Your task to perform on an android device: set default search engine in the chrome app Image 0: 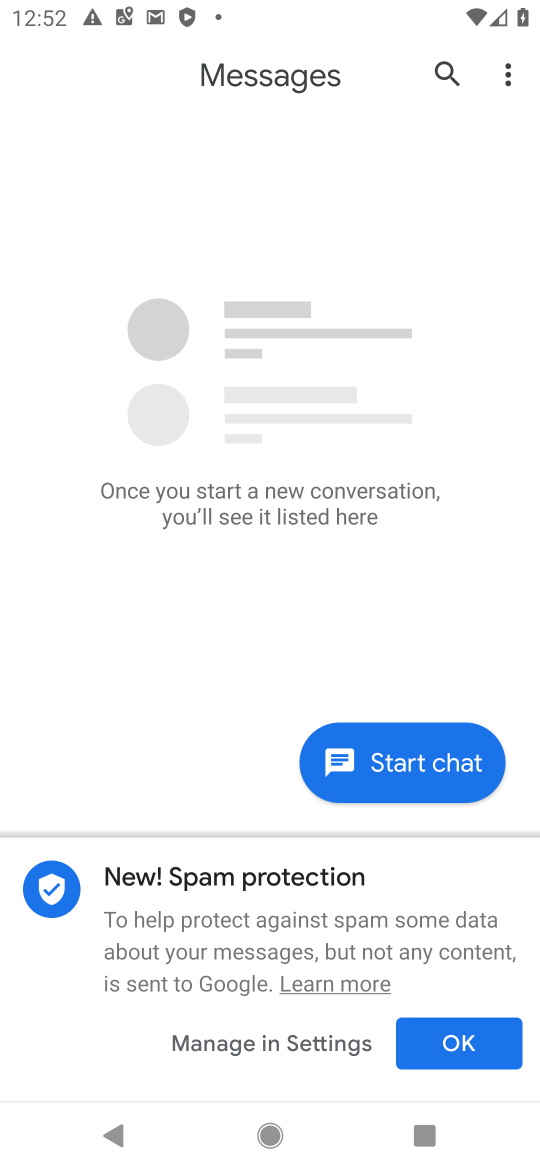
Step 0: drag from (312, 956) to (343, 61)
Your task to perform on an android device: set default search engine in the chrome app Image 1: 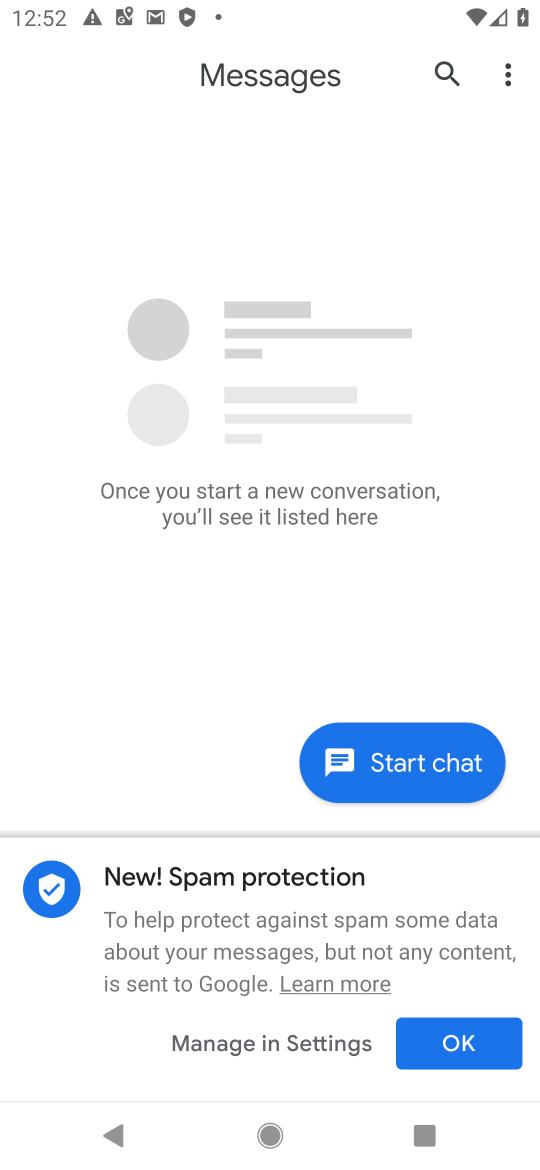
Step 1: press home button
Your task to perform on an android device: set default search engine in the chrome app Image 2: 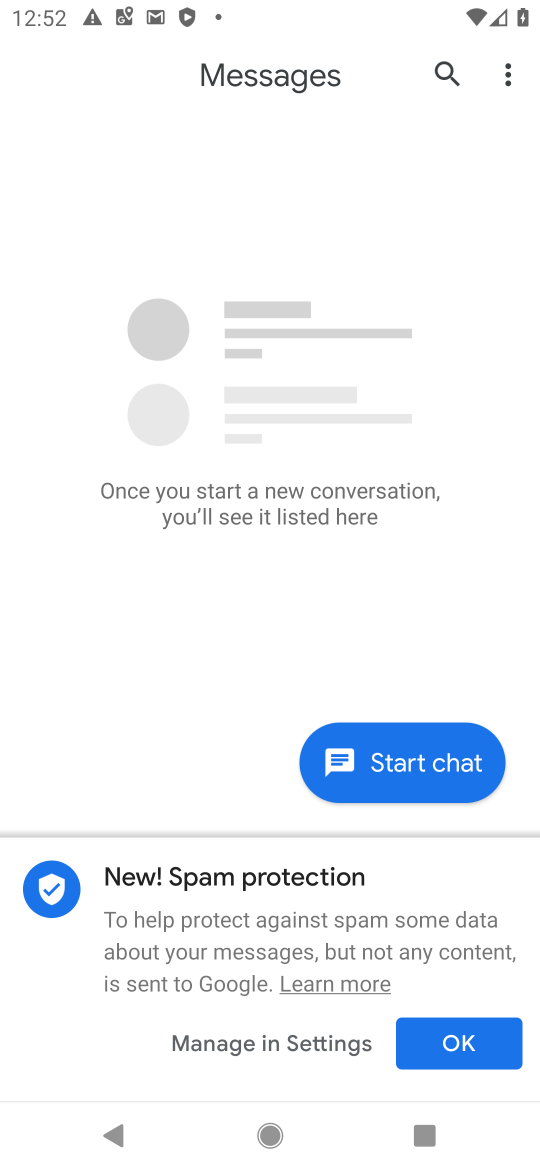
Step 2: press home button
Your task to perform on an android device: set default search engine in the chrome app Image 3: 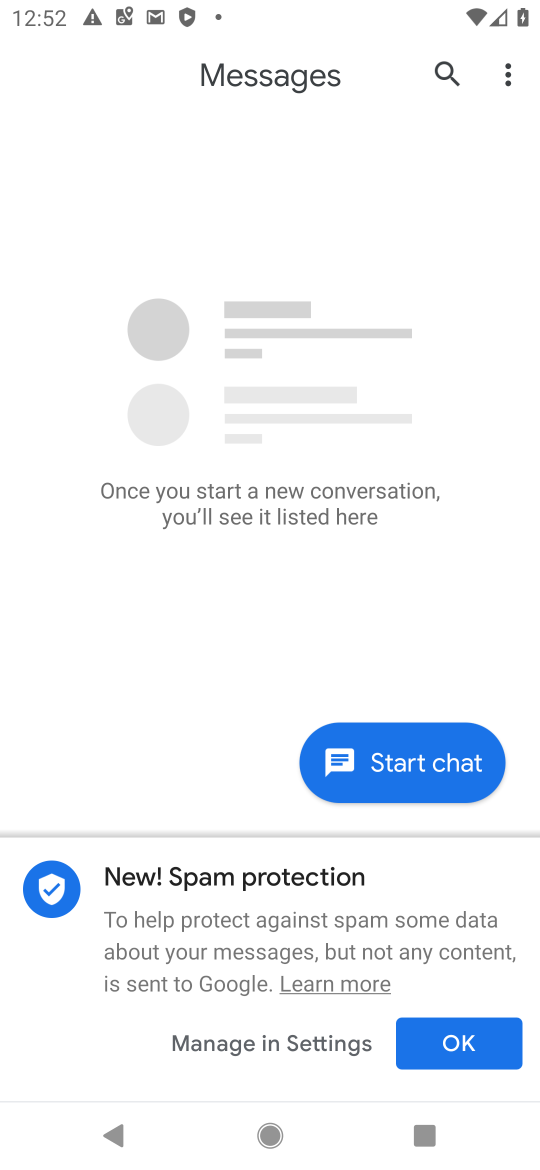
Step 3: click (263, 301)
Your task to perform on an android device: set default search engine in the chrome app Image 4: 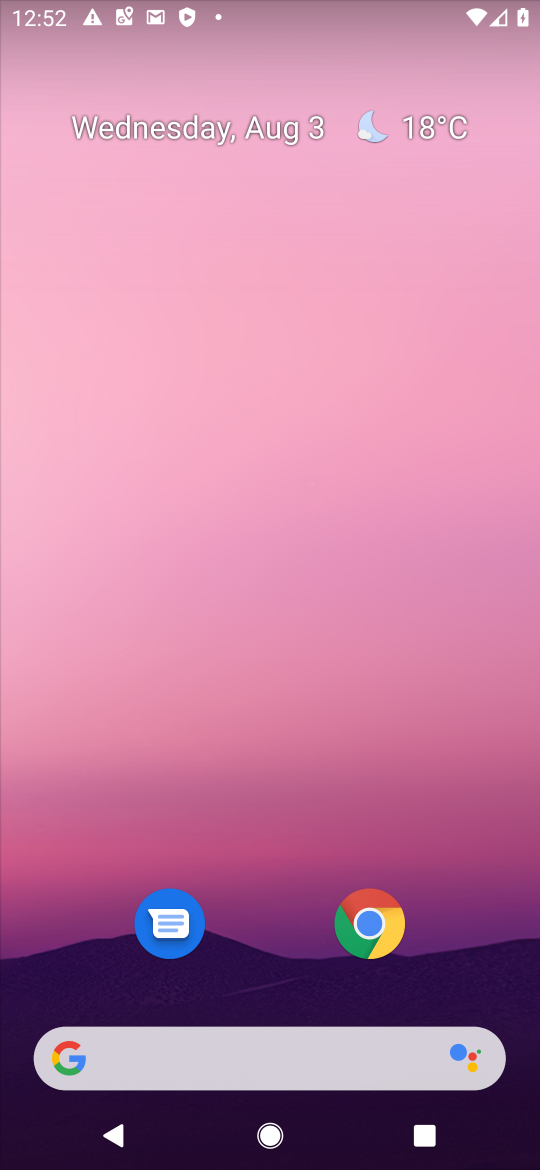
Step 4: drag from (252, 938) to (189, 13)
Your task to perform on an android device: set default search engine in the chrome app Image 5: 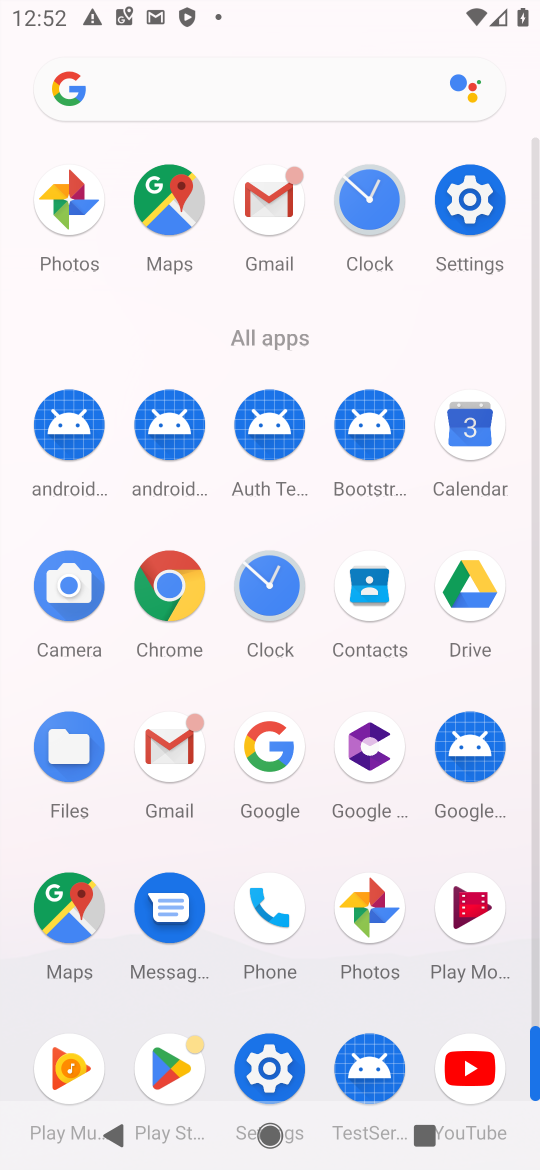
Step 5: drag from (277, 1016) to (223, 252)
Your task to perform on an android device: set default search engine in the chrome app Image 6: 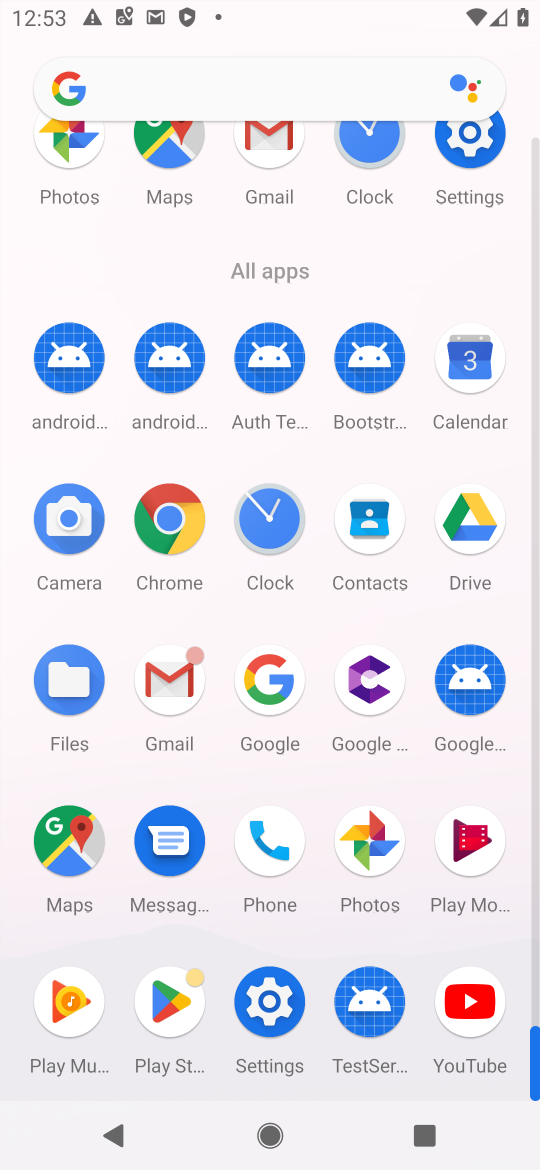
Step 6: click (183, 521)
Your task to perform on an android device: set default search engine in the chrome app Image 7: 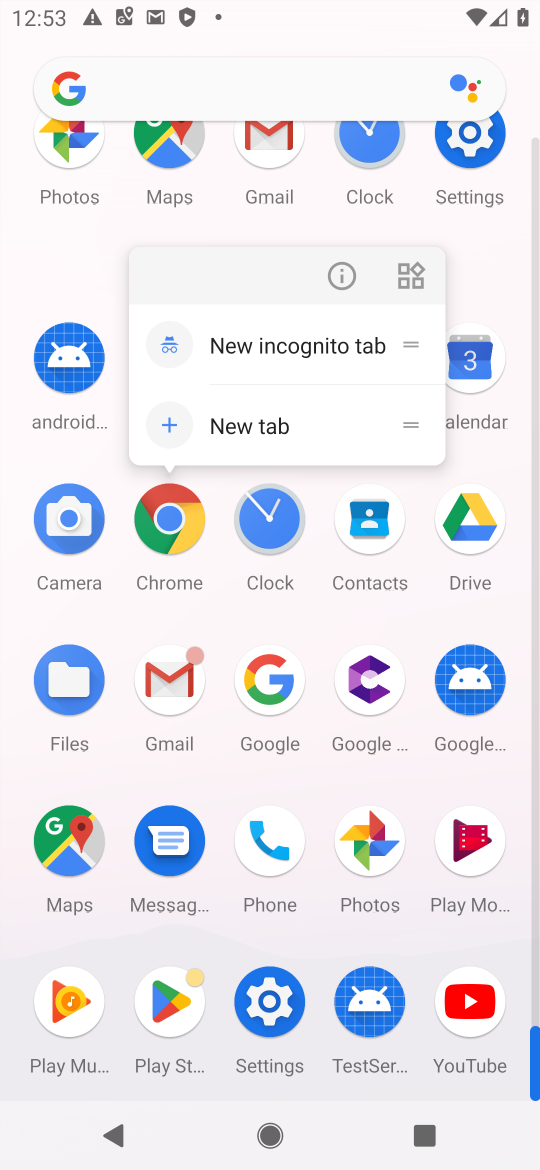
Step 7: click (336, 273)
Your task to perform on an android device: set default search engine in the chrome app Image 8: 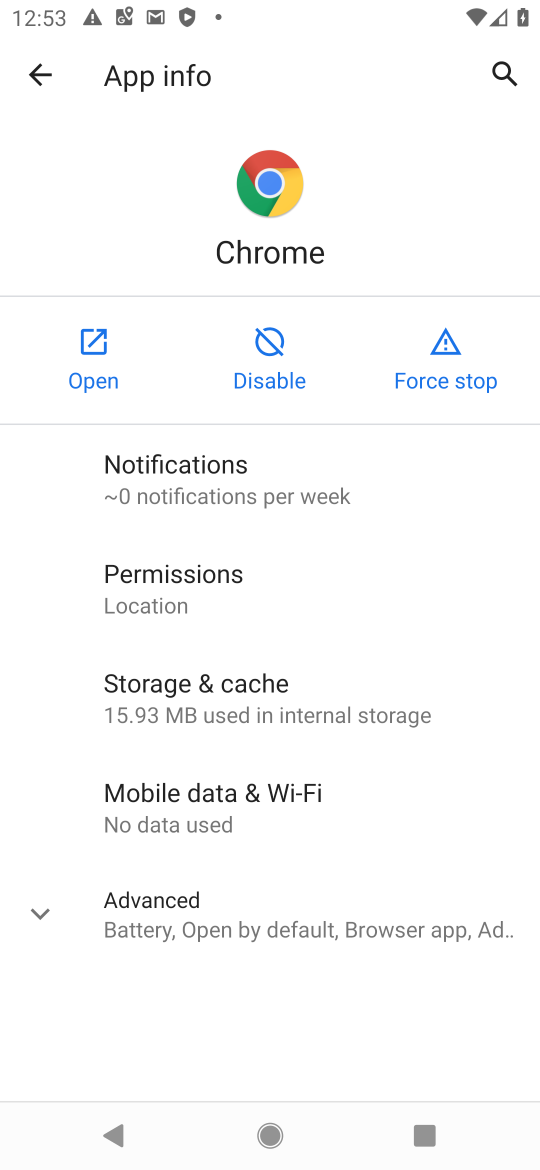
Step 8: click (131, 342)
Your task to perform on an android device: set default search engine in the chrome app Image 9: 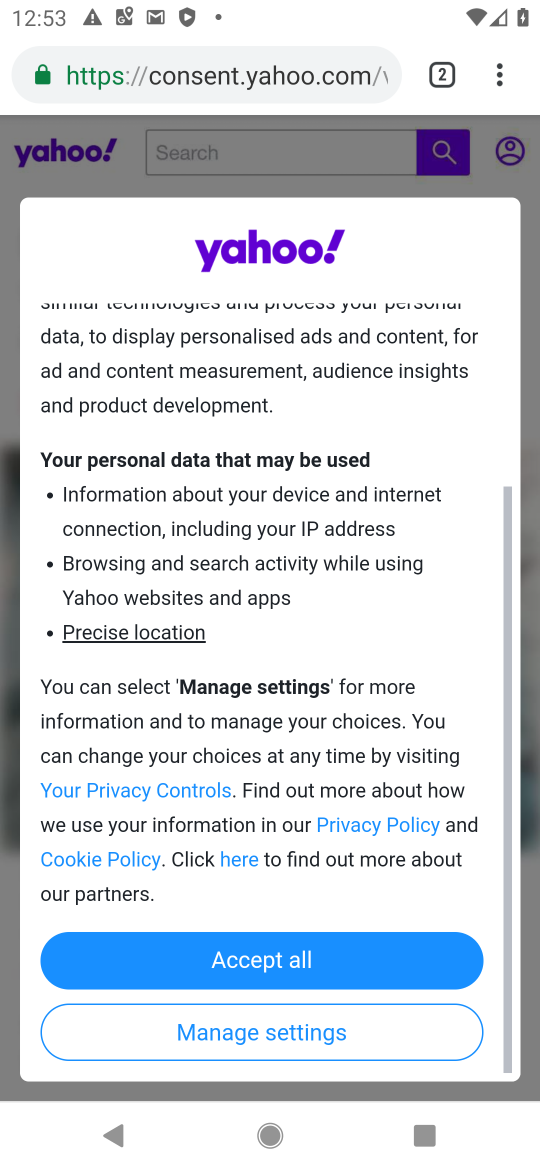
Step 9: drag from (183, 822) to (190, 350)
Your task to perform on an android device: set default search engine in the chrome app Image 10: 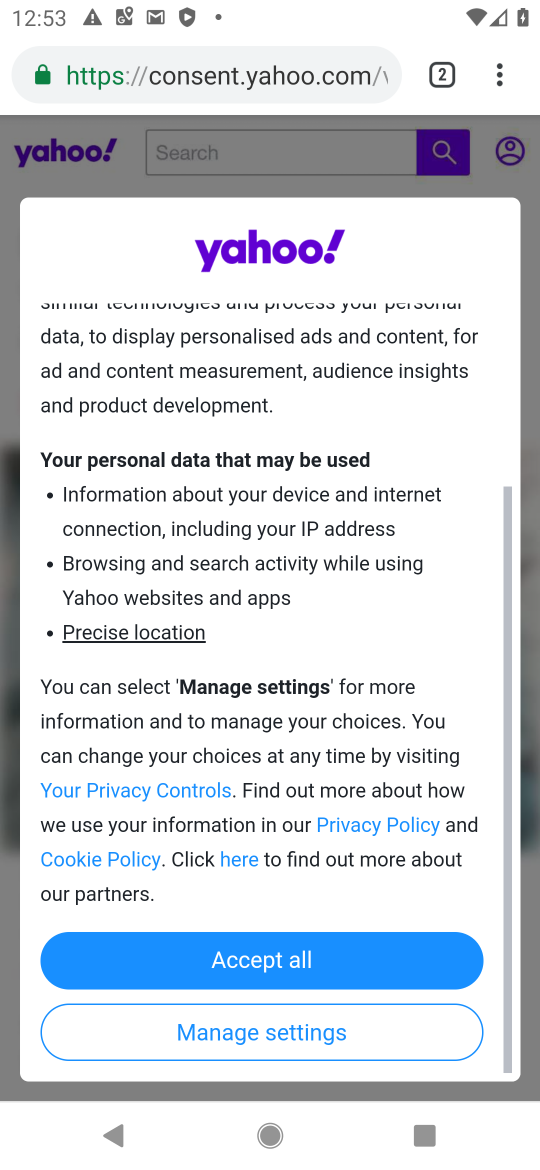
Step 10: drag from (277, 775) to (277, 194)
Your task to perform on an android device: set default search engine in the chrome app Image 11: 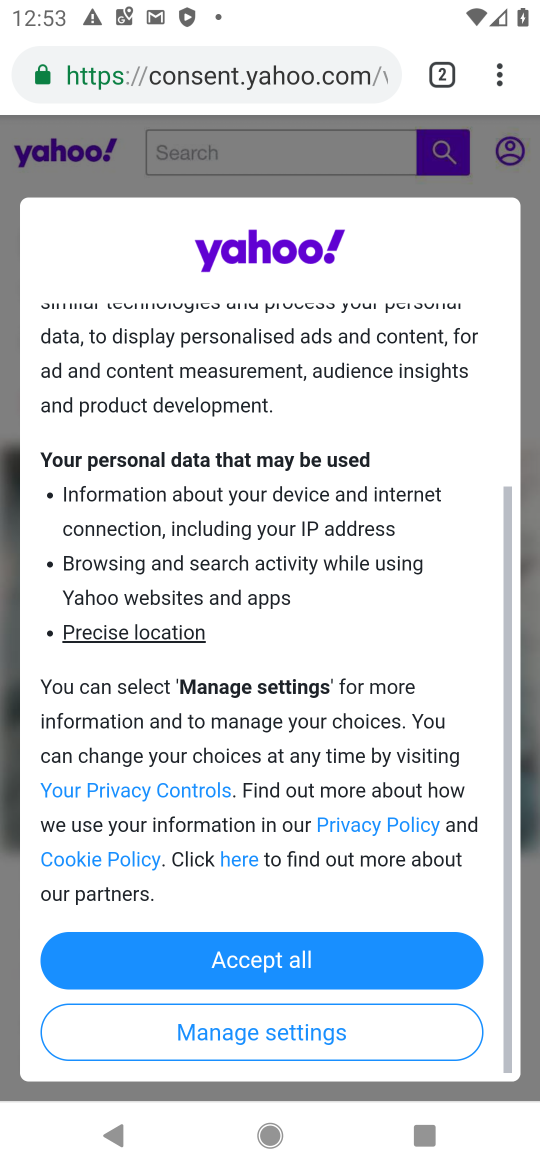
Step 11: drag from (257, 814) to (339, 528)
Your task to perform on an android device: set default search engine in the chrome app Image 12: 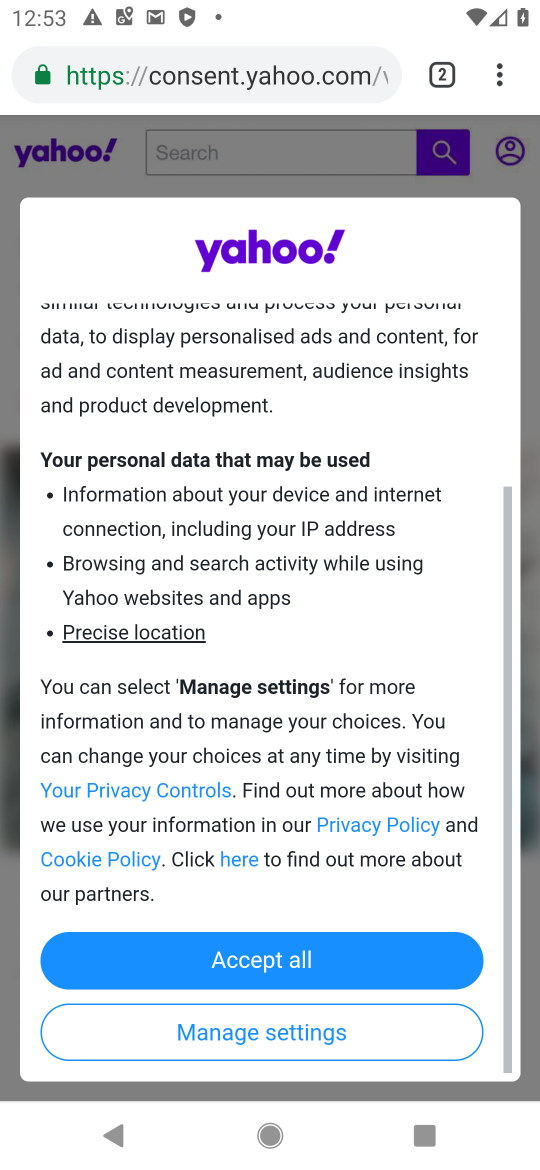
Step 12: drag from (261, 815) to (274, 470)
Your task to perform on an android device: set default search engine in the chrome app Image 13: 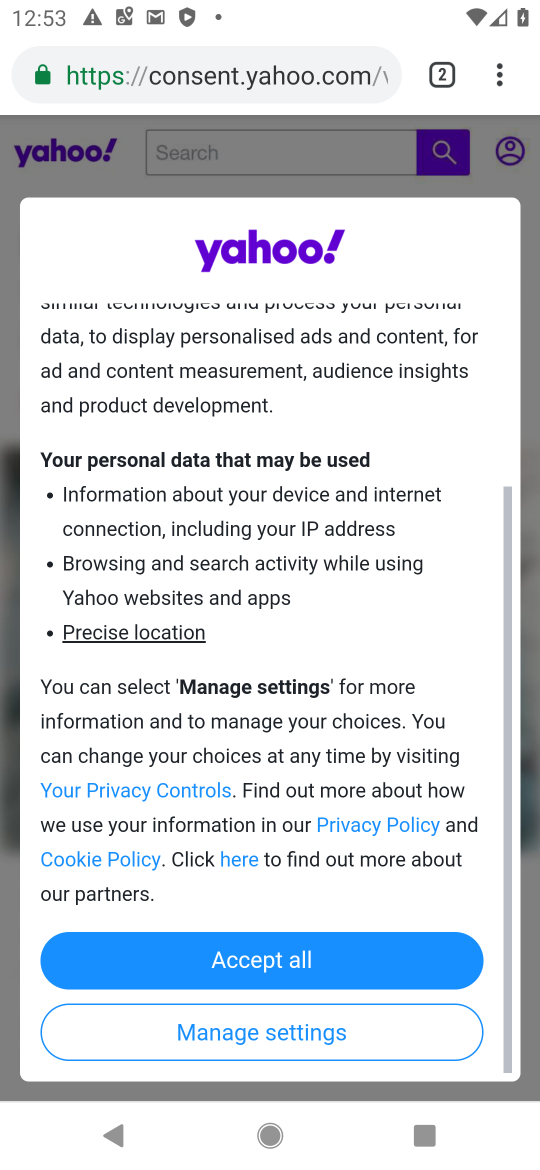
Step 13: drag from (268, 856) to (320, 483)
Your task to perform on an android device: set default search engine in the chrome app Image 14: 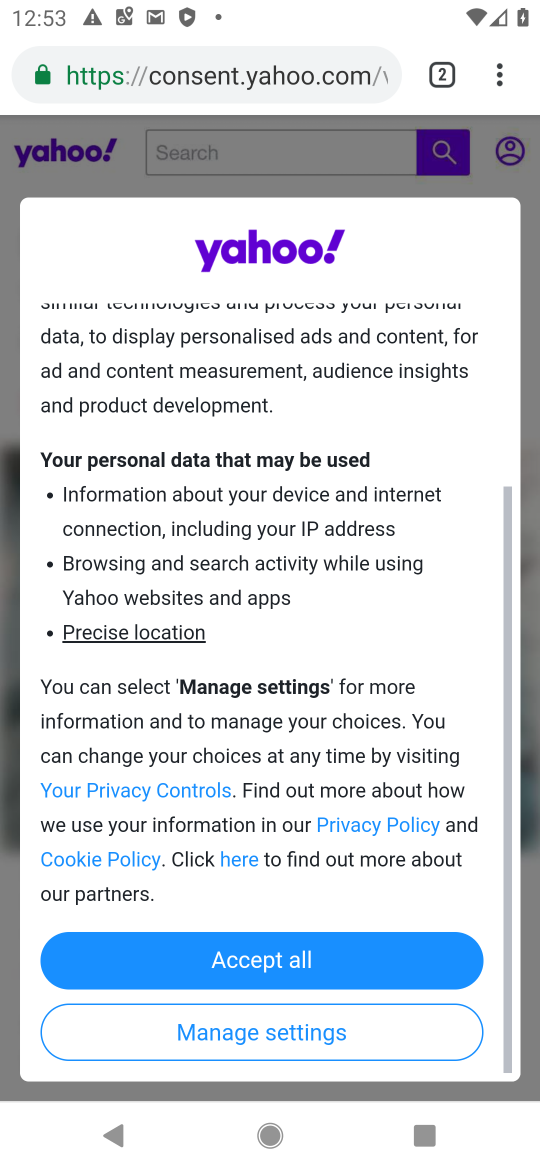
Step 14: drag from (292, 774) to (298, 518)
Your task to perform on an android device: set default search engine in the chrome app Image 15: 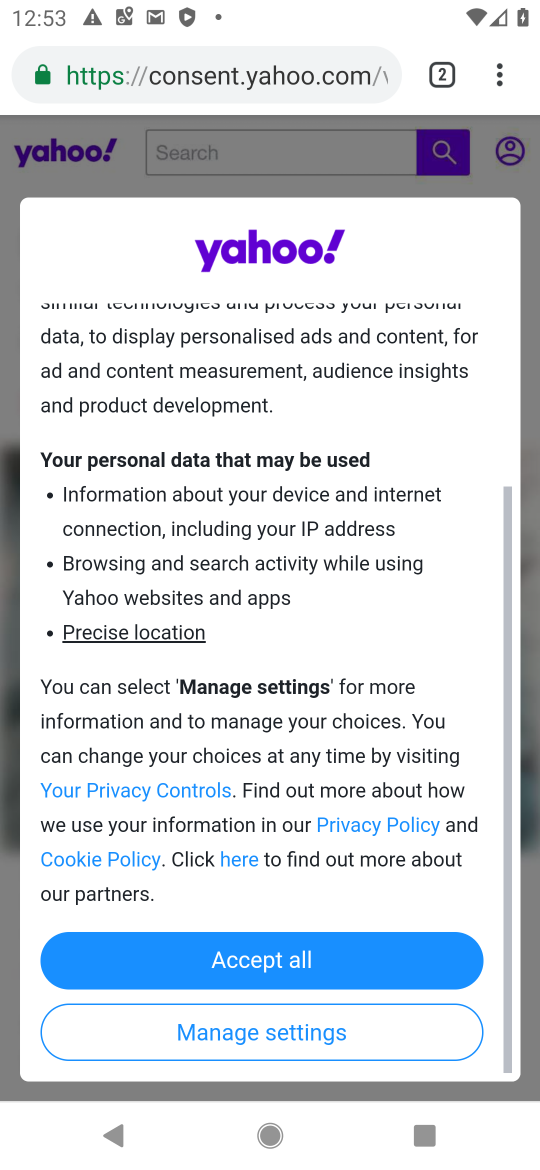
Step 15: drag from (289, 836) to (285, 493)
Your task to perform on an android device: set default search engine in the chrome app Image 16: 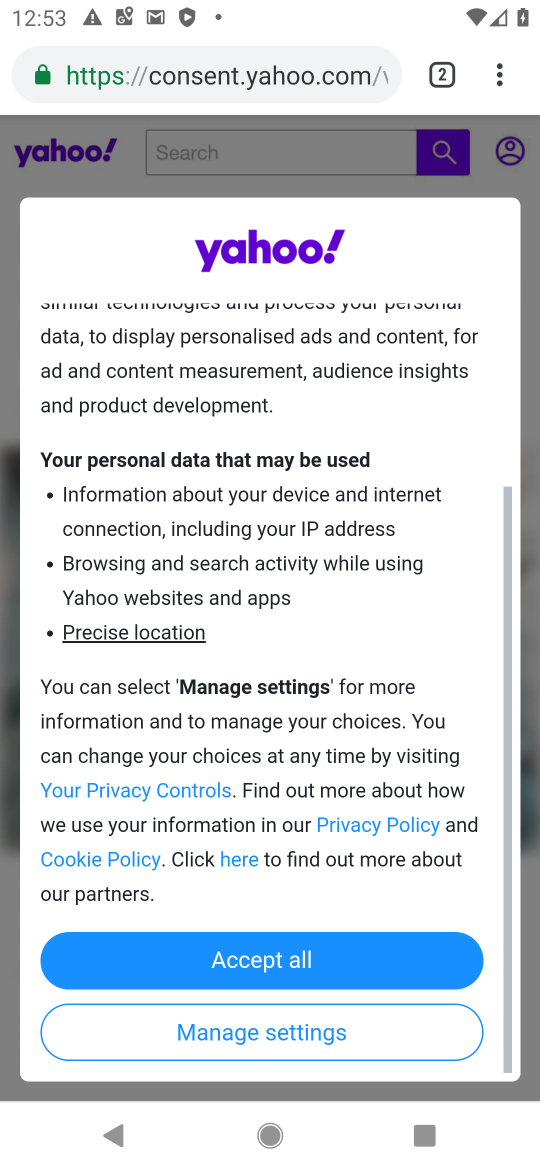
Step 16: drag from (285, 833) to (282, 275)
Your task to perform on an android device: set default search engine in the chrome app Image 17: 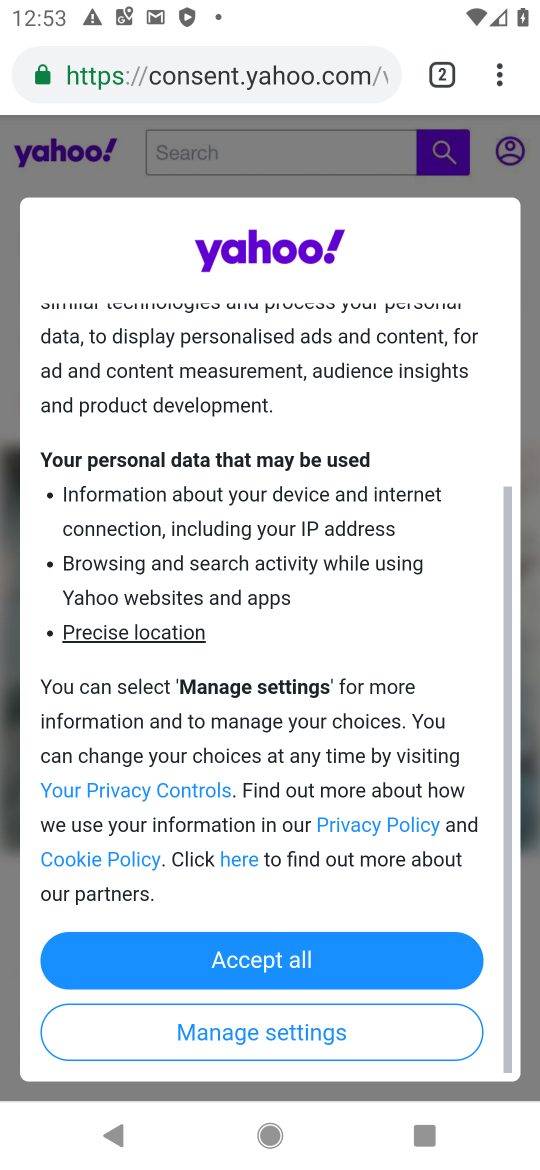
Step 17: drag from (482, 69) to (321, 990)
Your task to perform on an android device: set default search engine in the chrome app Image 18: 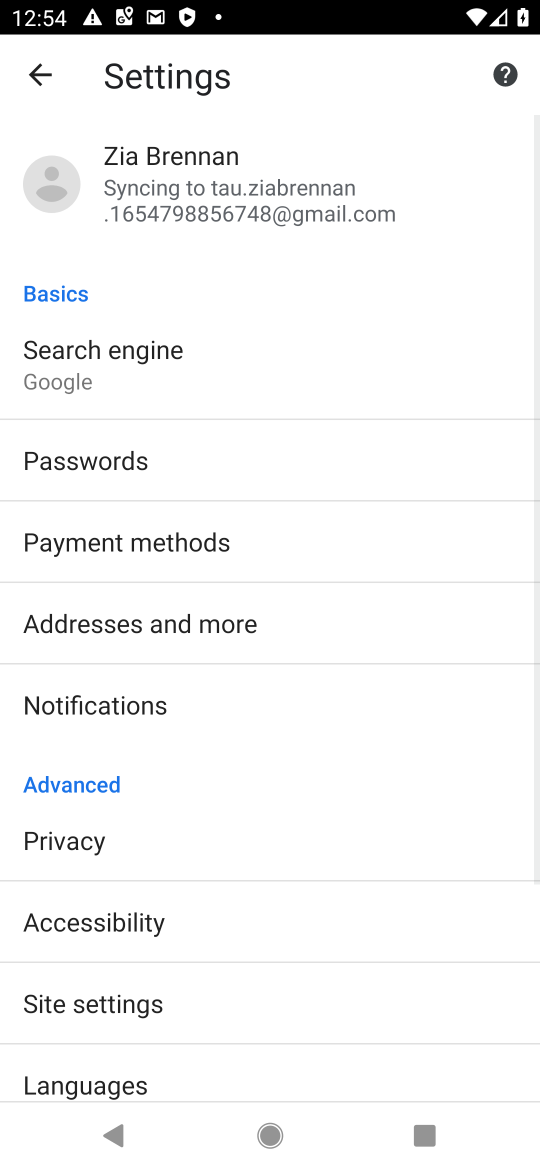
Step 18: drag from (190, 925) to (218, 351)
Your task to perform on an android device: set default search engine in the chrome app Image 19: 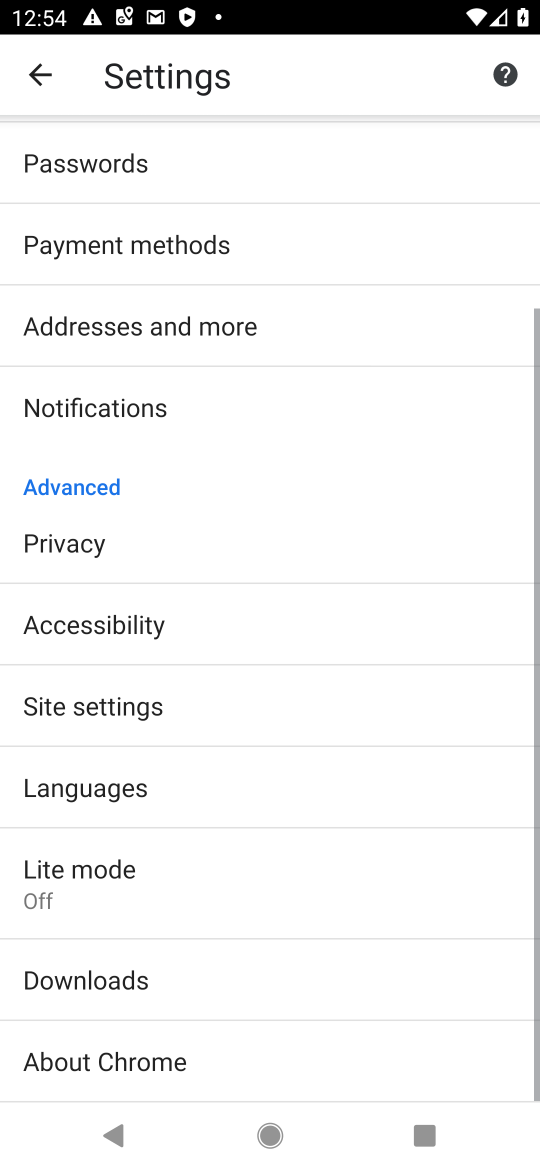
Step 19: drag from (189, 427) to (254, 1084)
Your task to perform on an android device: set default search engine in the chrome app Image 20: 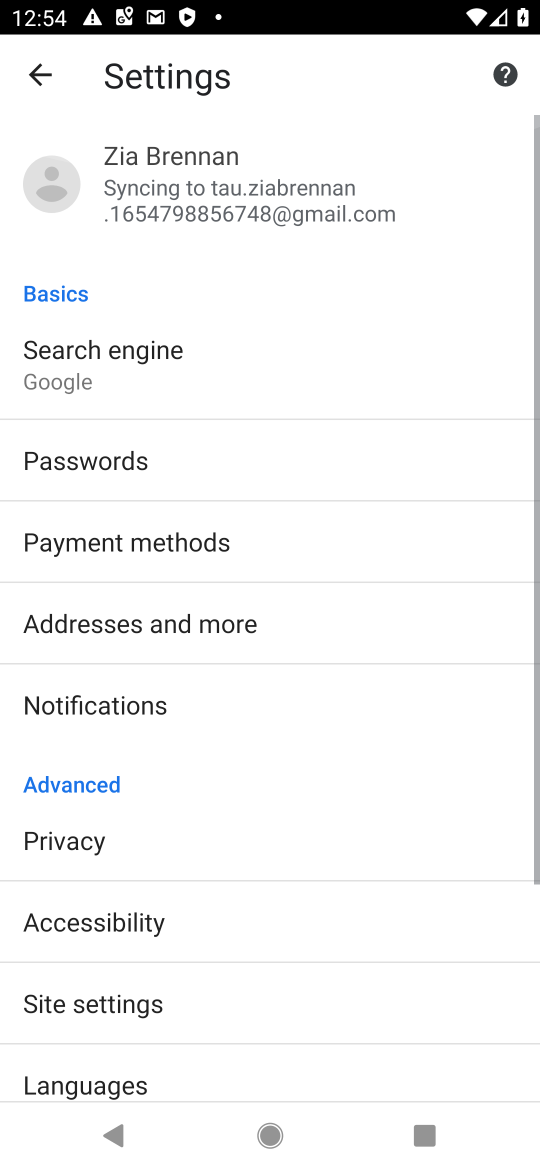
Step 20: drag from (286, 992) to (342, 208)
Your task to perform on an android device: set default search engine in the chrome app Image 21: 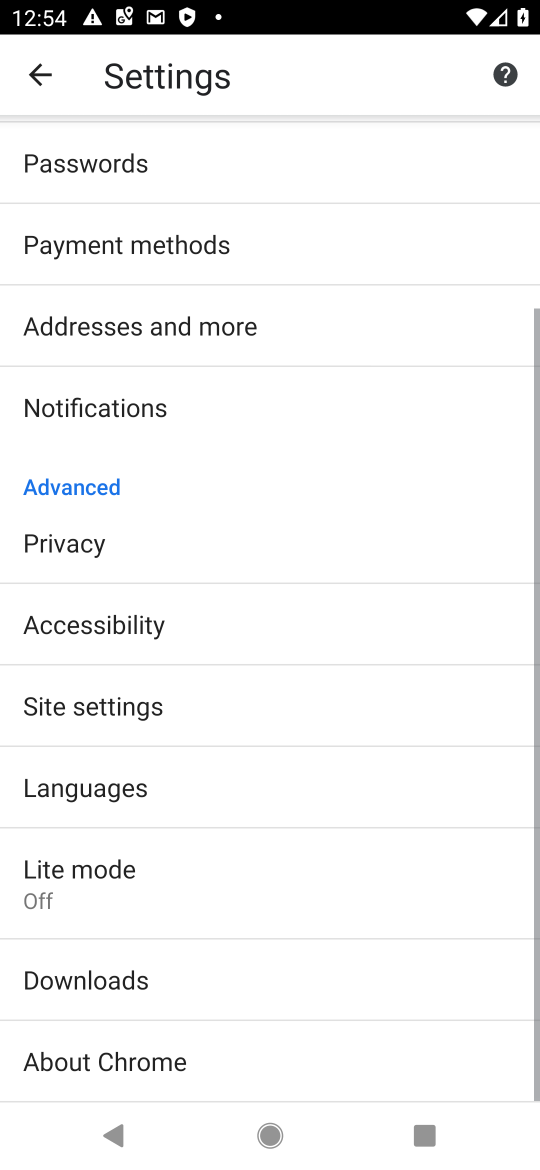
Step 21: drag from (331, 339) to (434, 1136)
Your task to perform on an android device: set default search engine in the chrome app Image 22: 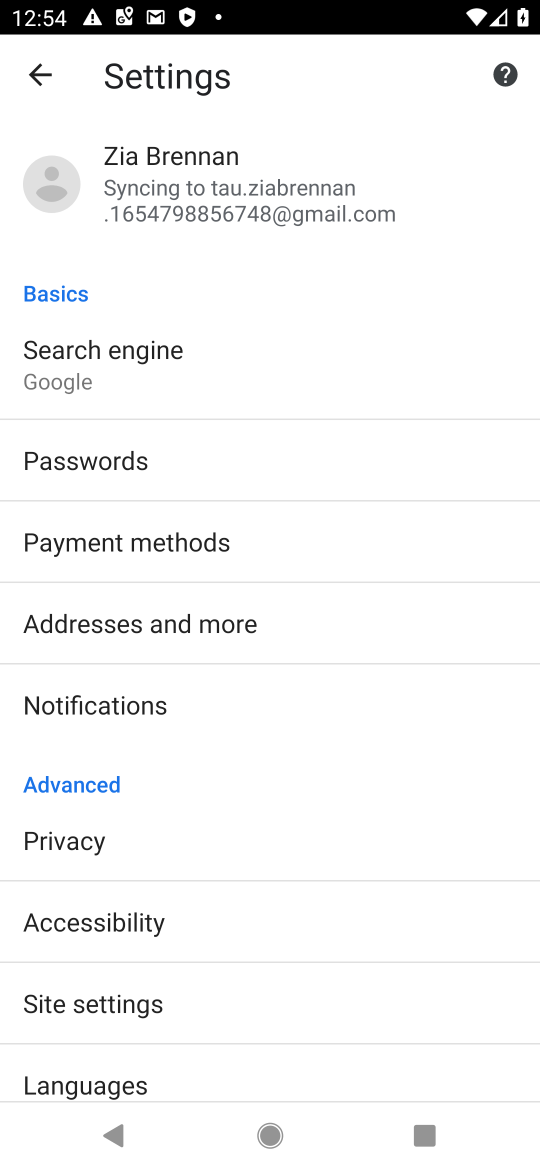
Step 22: click (155, 360)
Your task to perform on an android device: set default search engine in the chrome app Image 23: 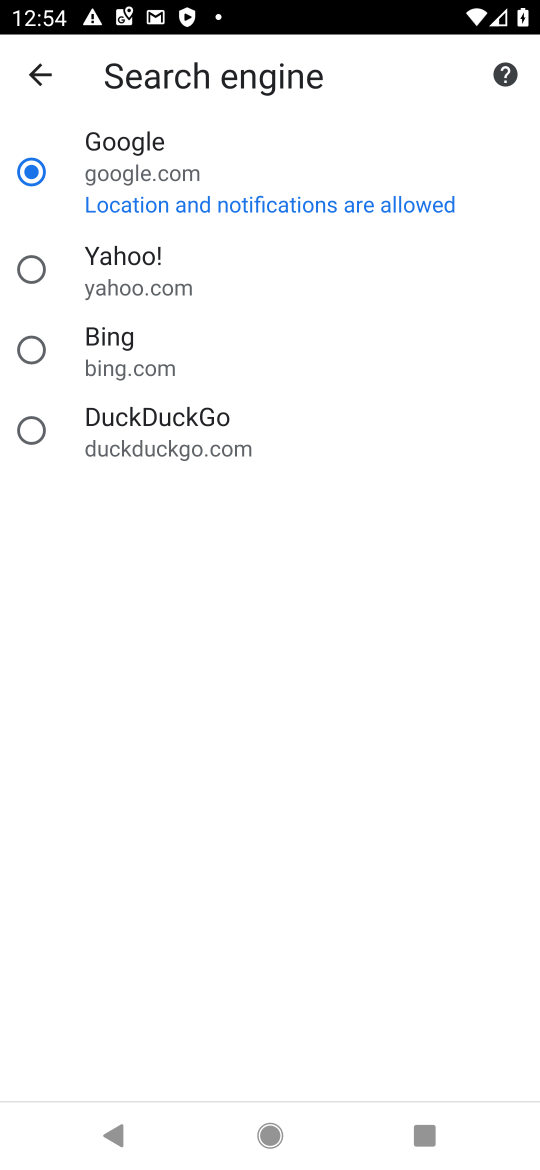
Step 23: drag from (261, 681) to (231, 241)
Your task to perform on an android device: set default search engine in the chrome app Image 24: 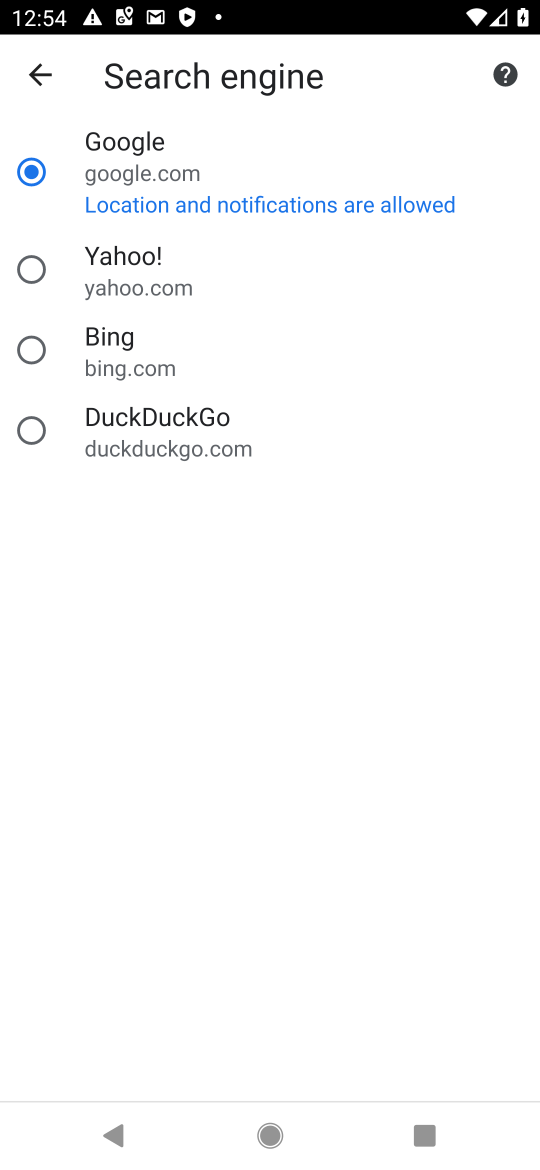
Step 24: drag from (238, 171) to (351, 702)
Your task to perform on an android device: set default search engine in the chrome app Image 25: 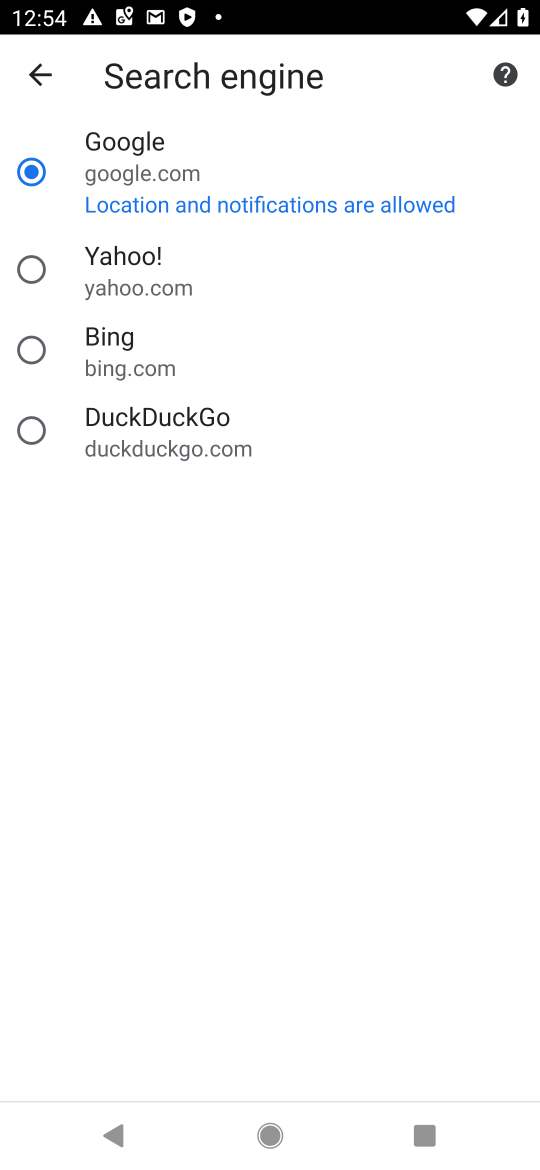
Step 25: drag from (274, 510) to (284, 190)
Your task to perform on an android device: set default search engine in the chrome app Image 26: 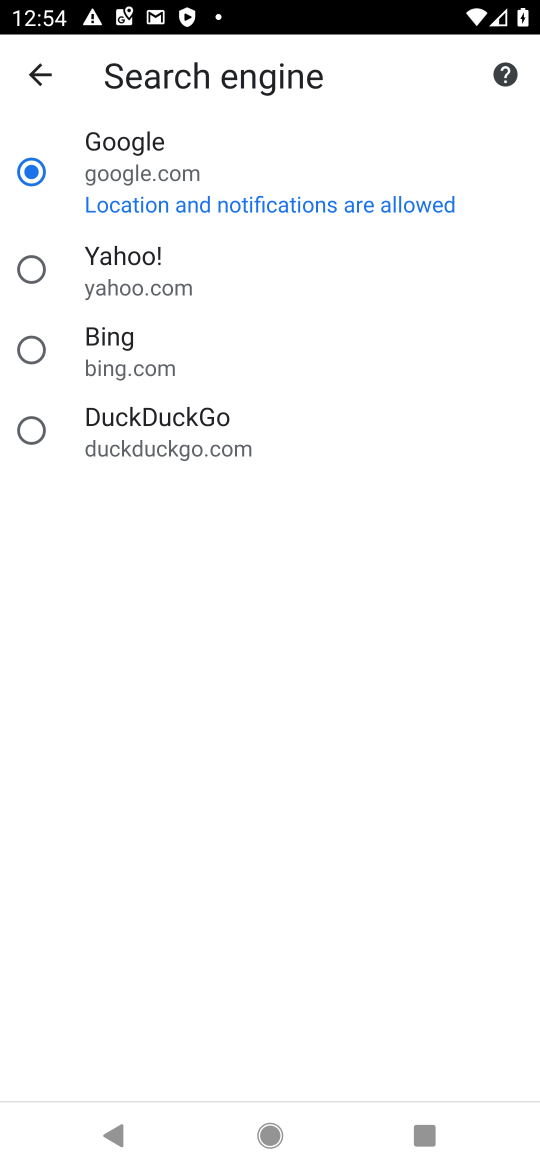
Step 26: drag from (251, 107) to (322, 851)
Your task to perform on an android device: set default search engine in the chrome app Image 27: 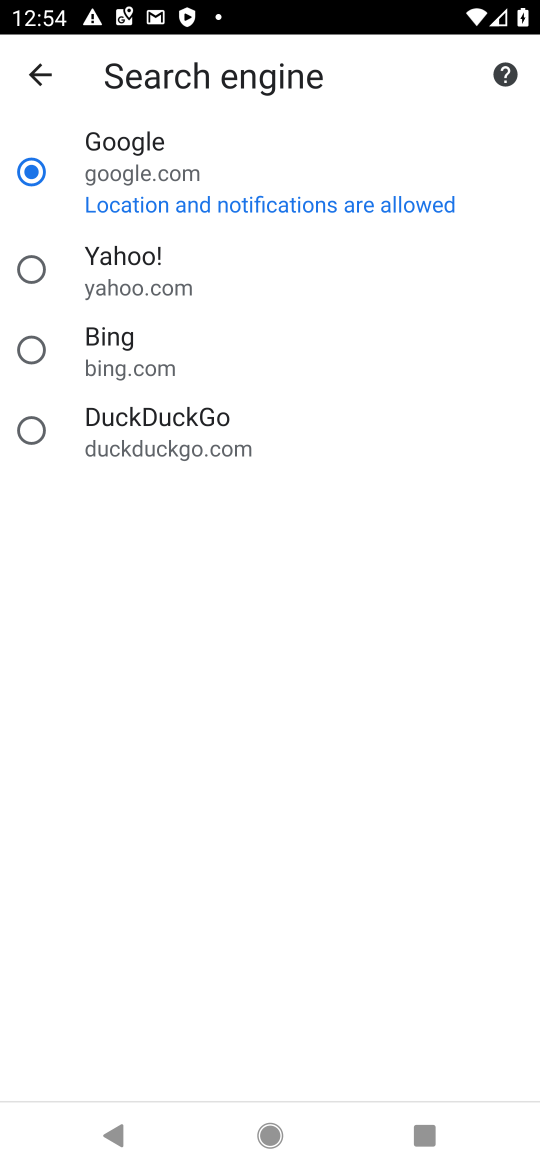
Step 27: drag from (274, 254) to (307, 676)
Your task to perform on an android device: set default search engine in the chrome app Image 28: 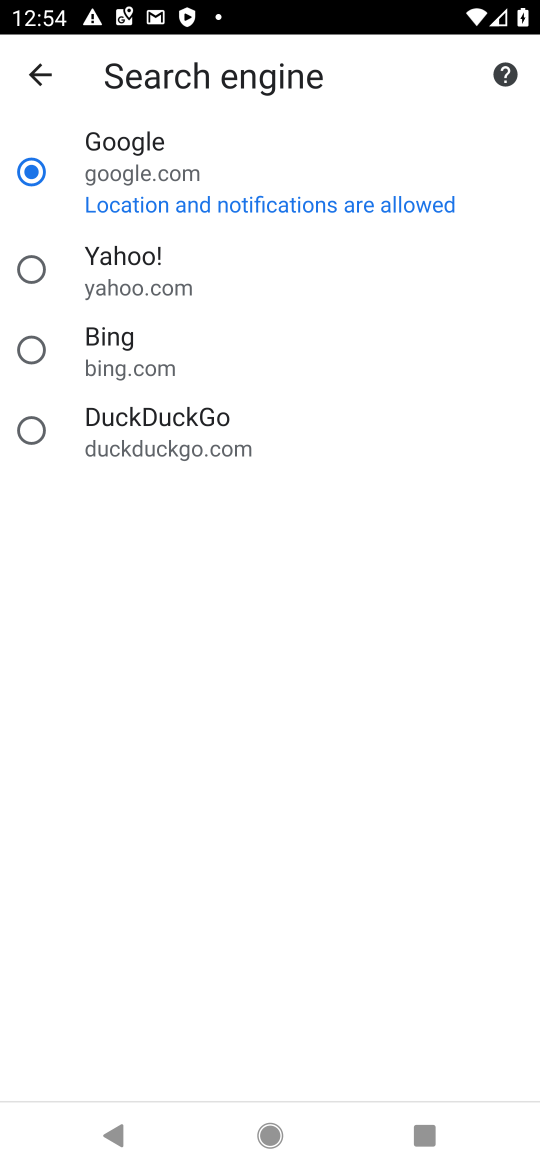
Step 28: drag from (287, 269) to (342, 1099)
Your task to perform on an android device: set default search engine in the chrome app Image 29: 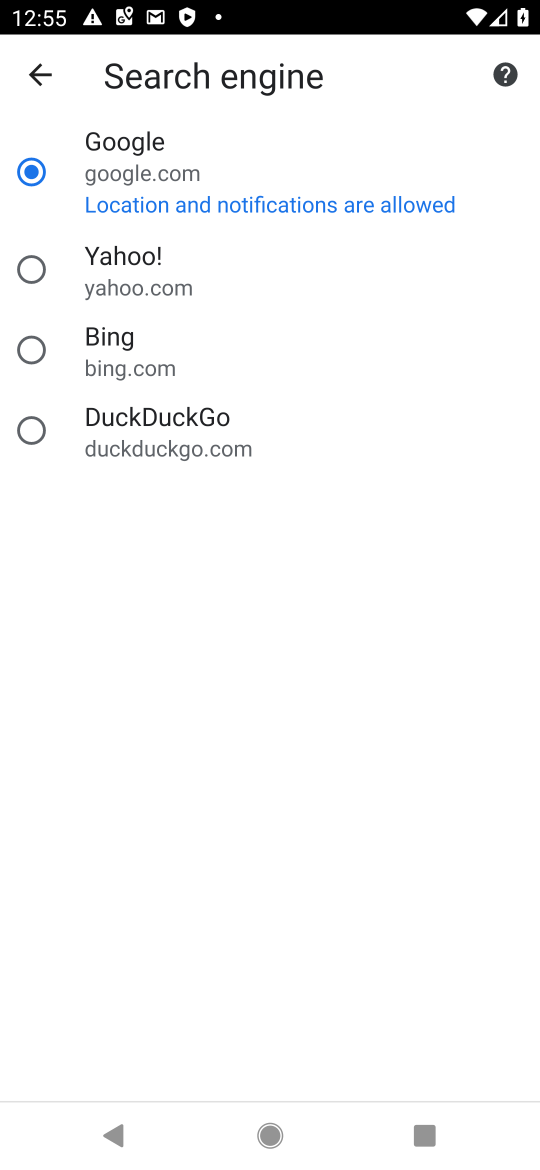
Step 29: click (252, 159)
Your task to perform on an android device: set default search engine in the chrome app Image 30: 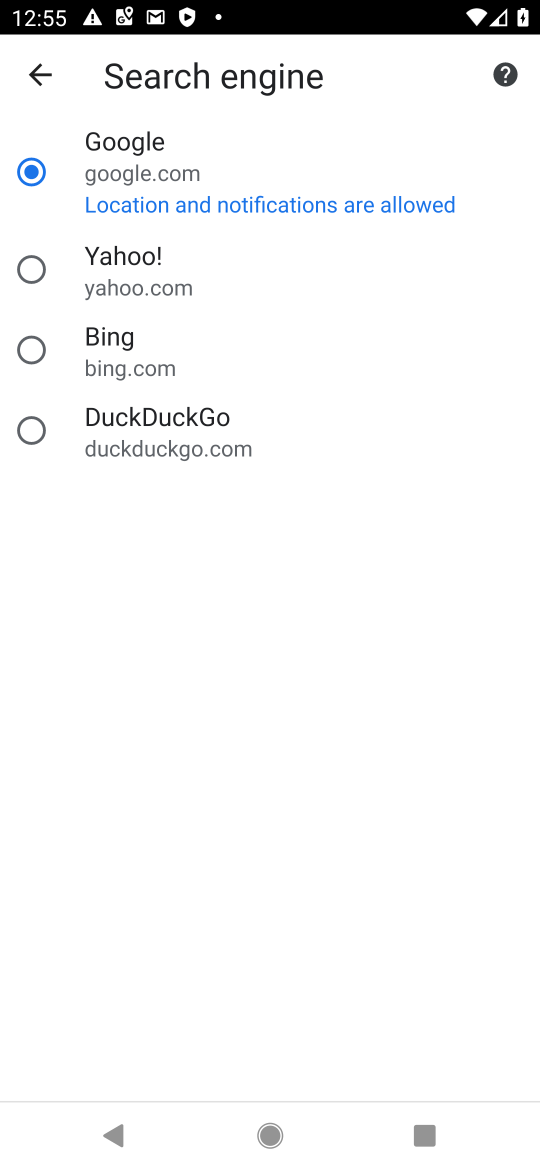
Step 30: task complete